Your task to perform on an android device: Open Chrome and go to the settings page Image 0: 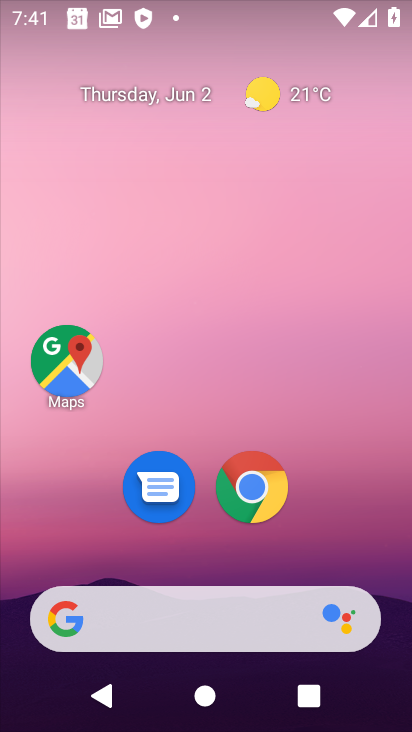
Step 0: click (253, 476)
Your task to perform on an android device: Open Chrome and go to the settings page Image 1: 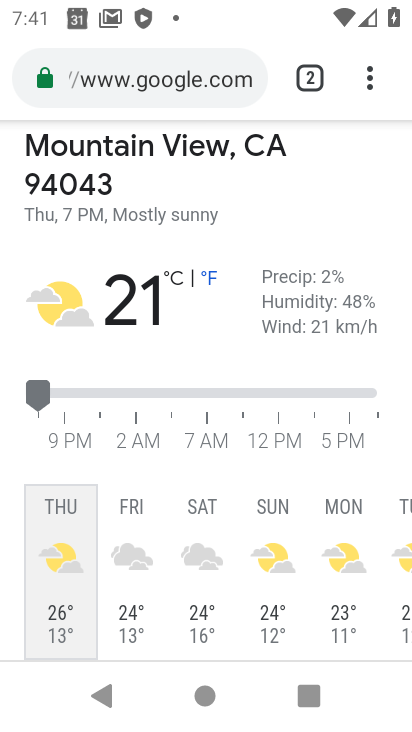
Step 1: click (371, 81)
Your task to perform on an android device: Open Chrome and go to the settings page Image 2: 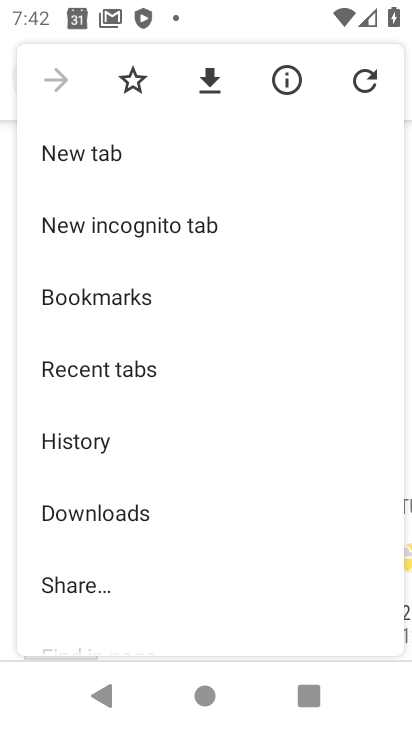
Step 2: drag from (93, 531) to (84, 194)
Your task to perform on an android device: Open Chrome and go to the settings page Image 3: 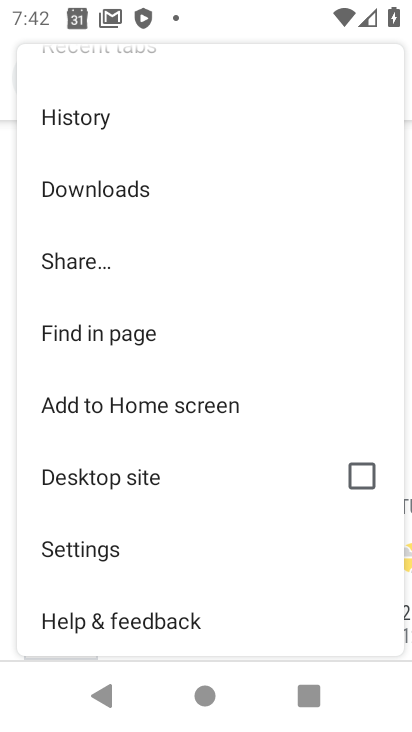
Step 3: click (69, 546)
Your task to perform on an android device: Open Chrome and go to the settings page Image 4: 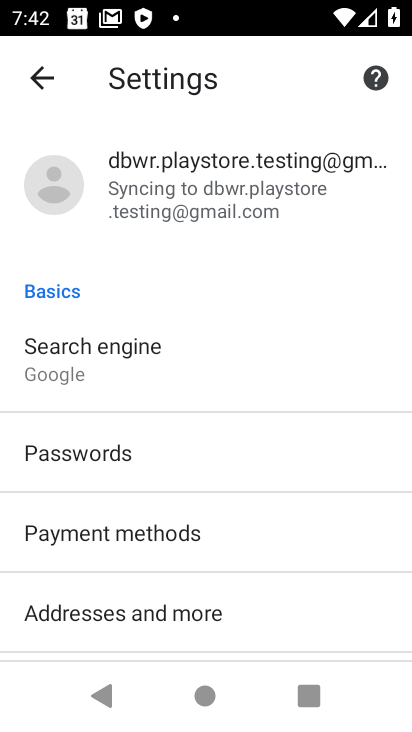
Step 4: task complete